Your task to perform on an android device: Show me productivity apps on the Play Store Image 0: 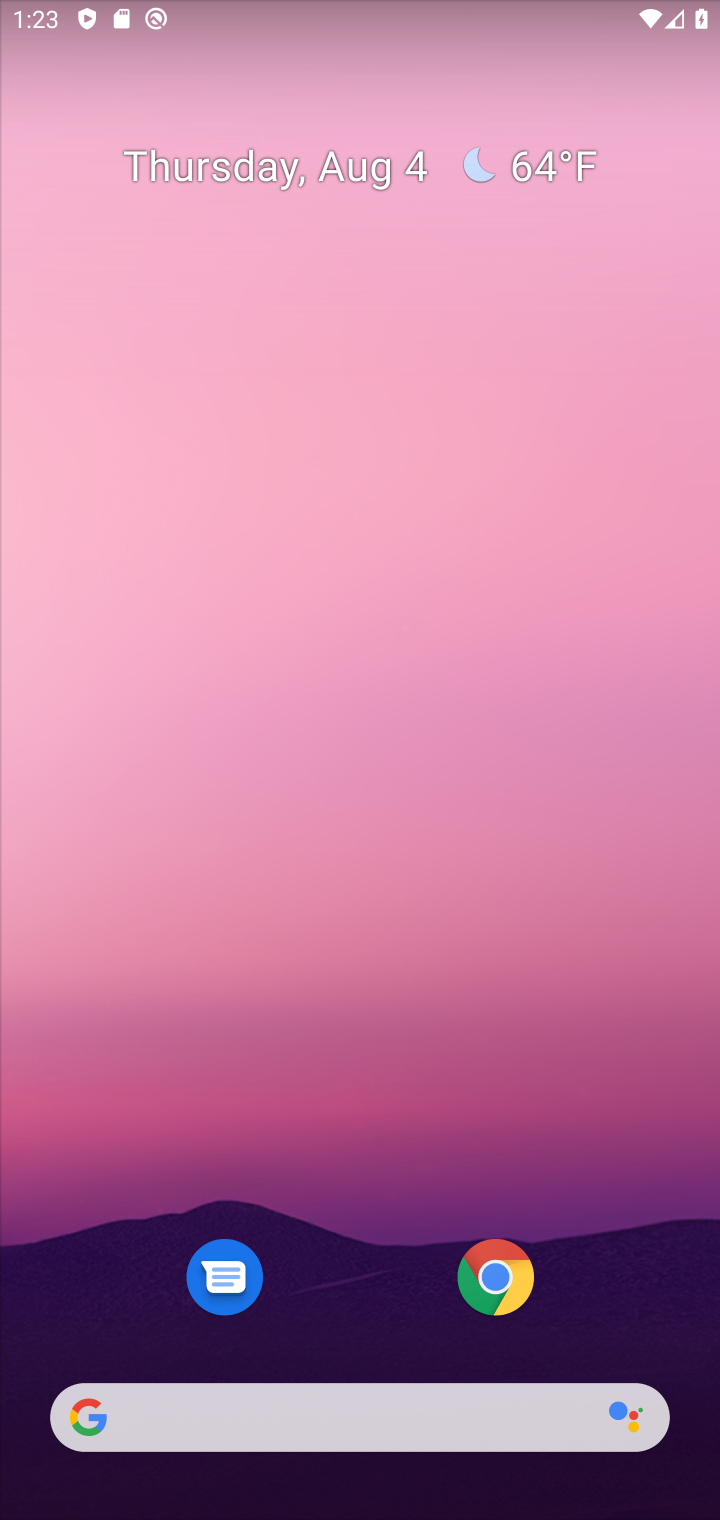
Step 0: drag from (283, 1263) to (334, 650)
Your task to perform on an android device: Show me productivity apps on the Play Store Image 1: 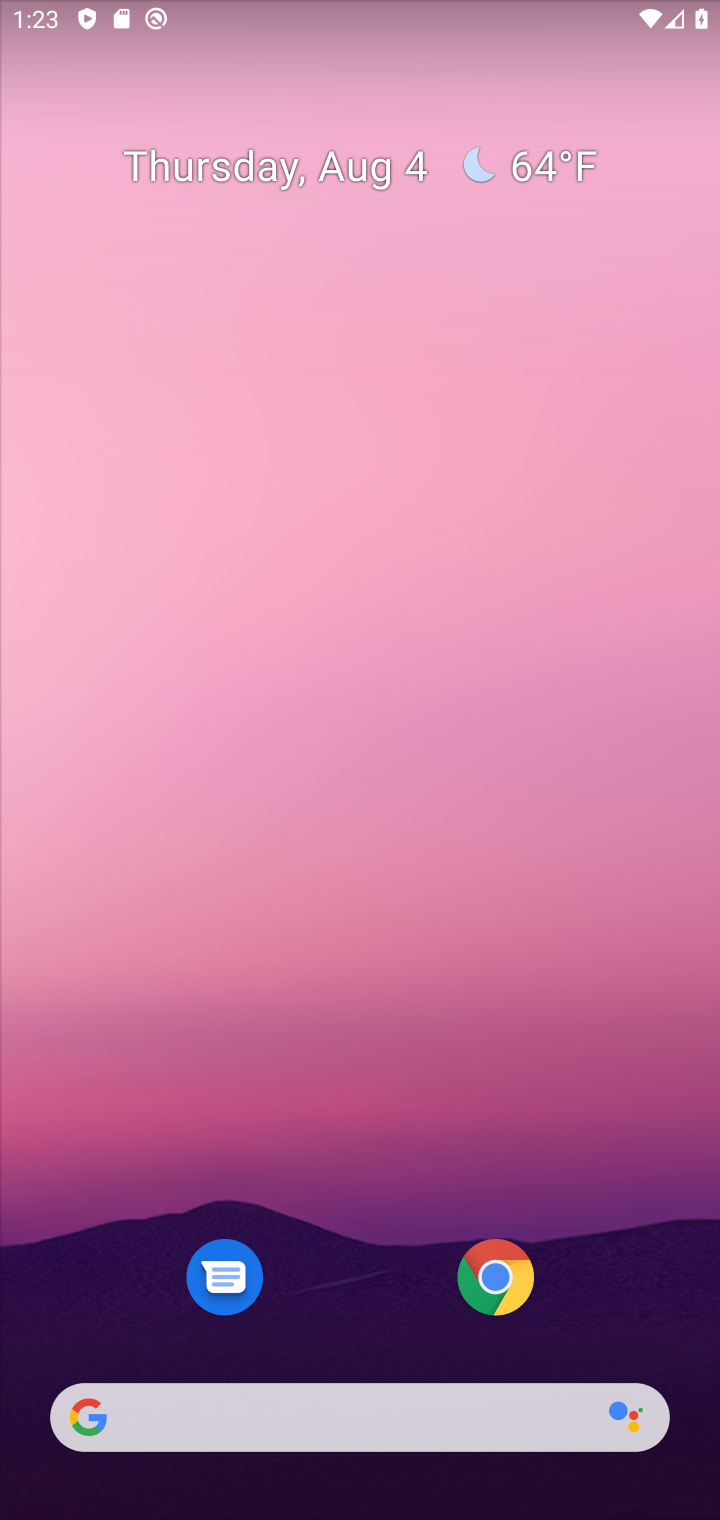
Step 1: drag from (365, 753) to (394, 413)
Your task to perform on an android device: Show me productivity apps on the Play Store Image 2: 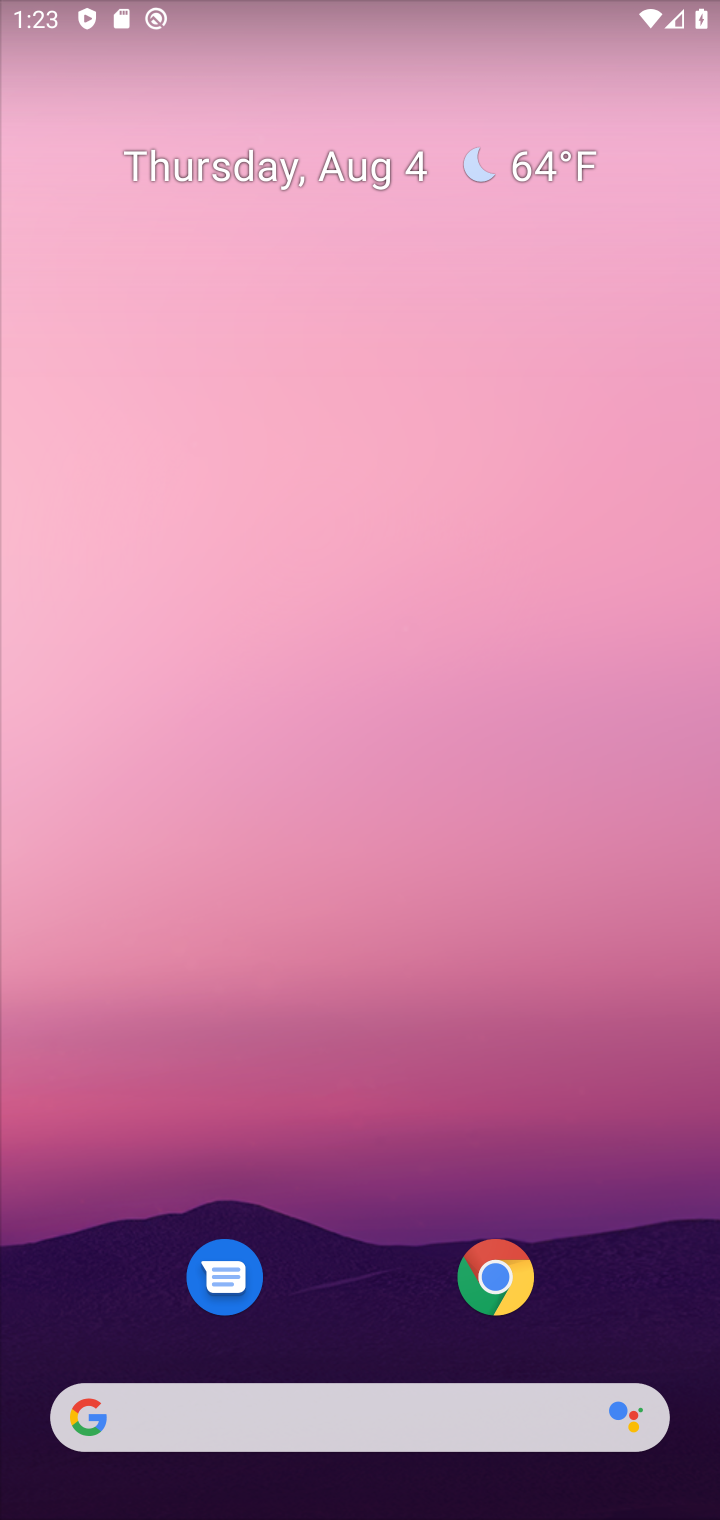
Step 2: drag from (377, 1013) to (391, 49)
Your task to perform on an android device: Show me productivity apps on the Play Store Image 3: 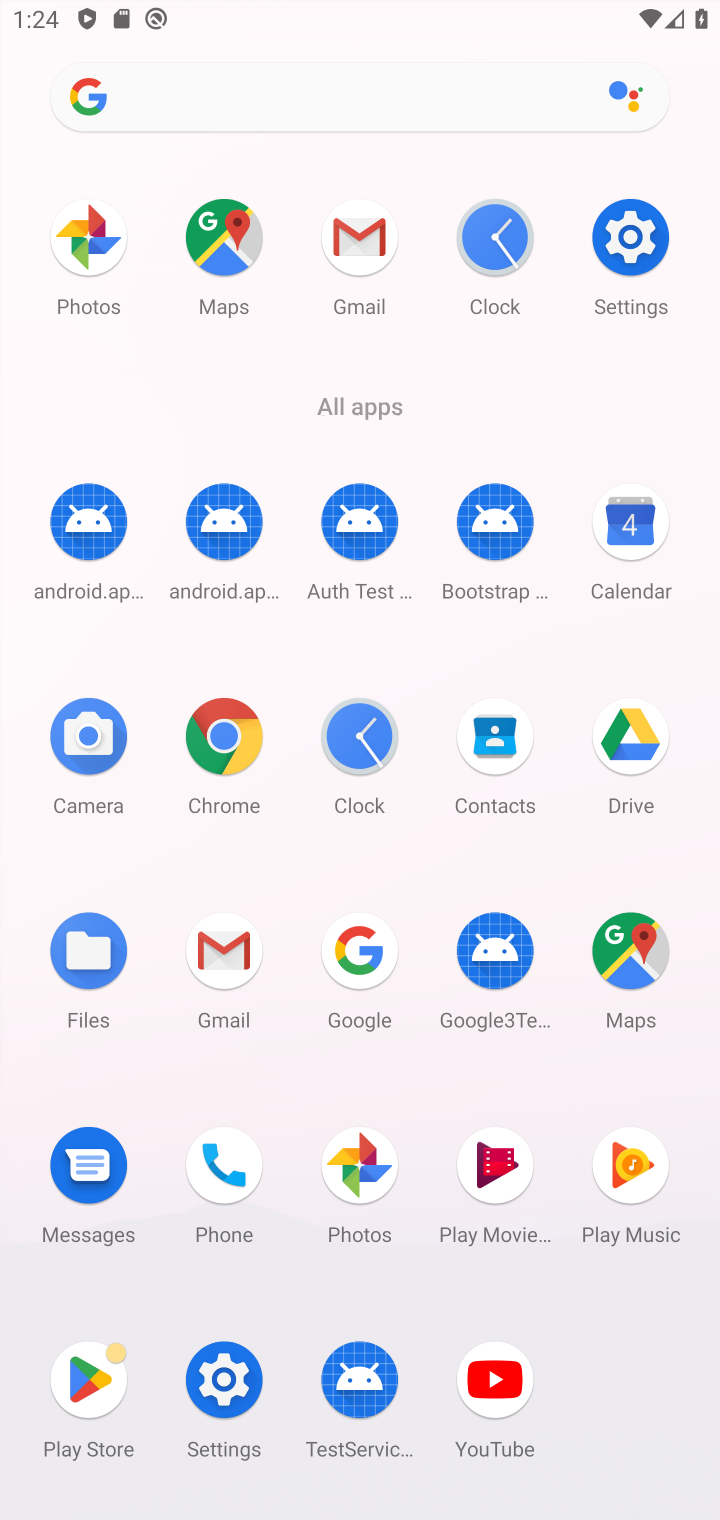
Step 3: click (92, 1359)
Your task to perform on an android device: Show me productivity apps on the Play Store Image 4: 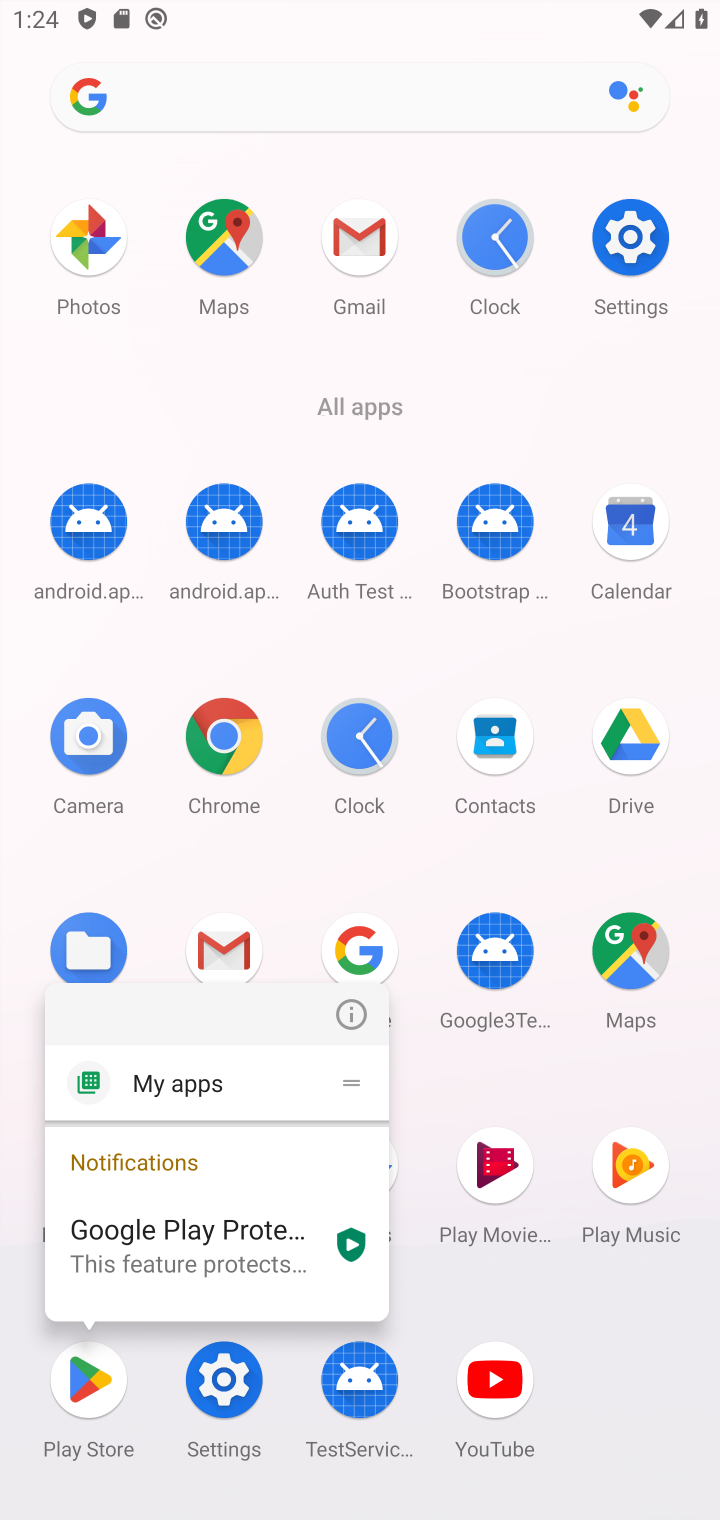
Step 4: click (105, 1392)
Your task to perform on an android device: Show me productivity apps on the Play Store Image 5: 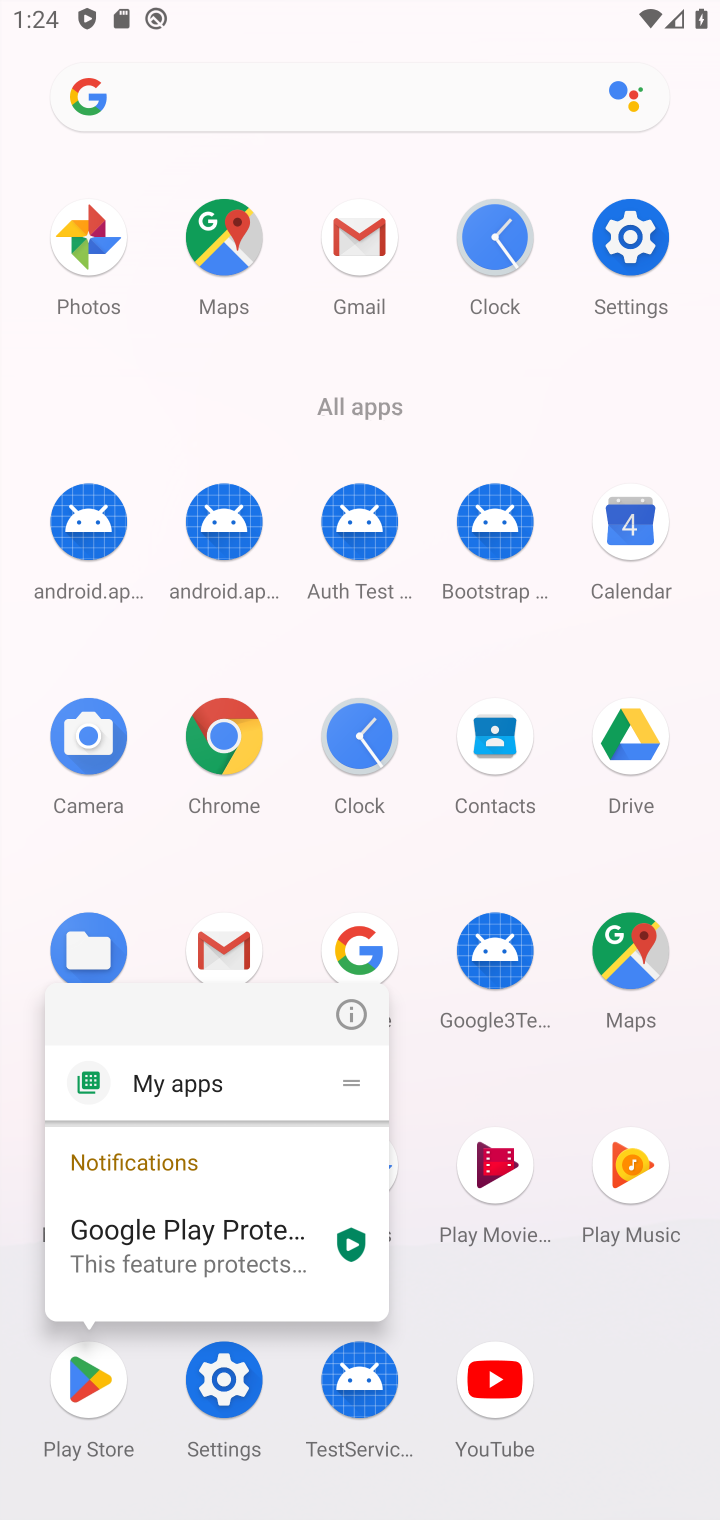
Step 5: click (105, 1392)
Your task to perform on an android device: Show me productivity apps on the Play Store Image 6: 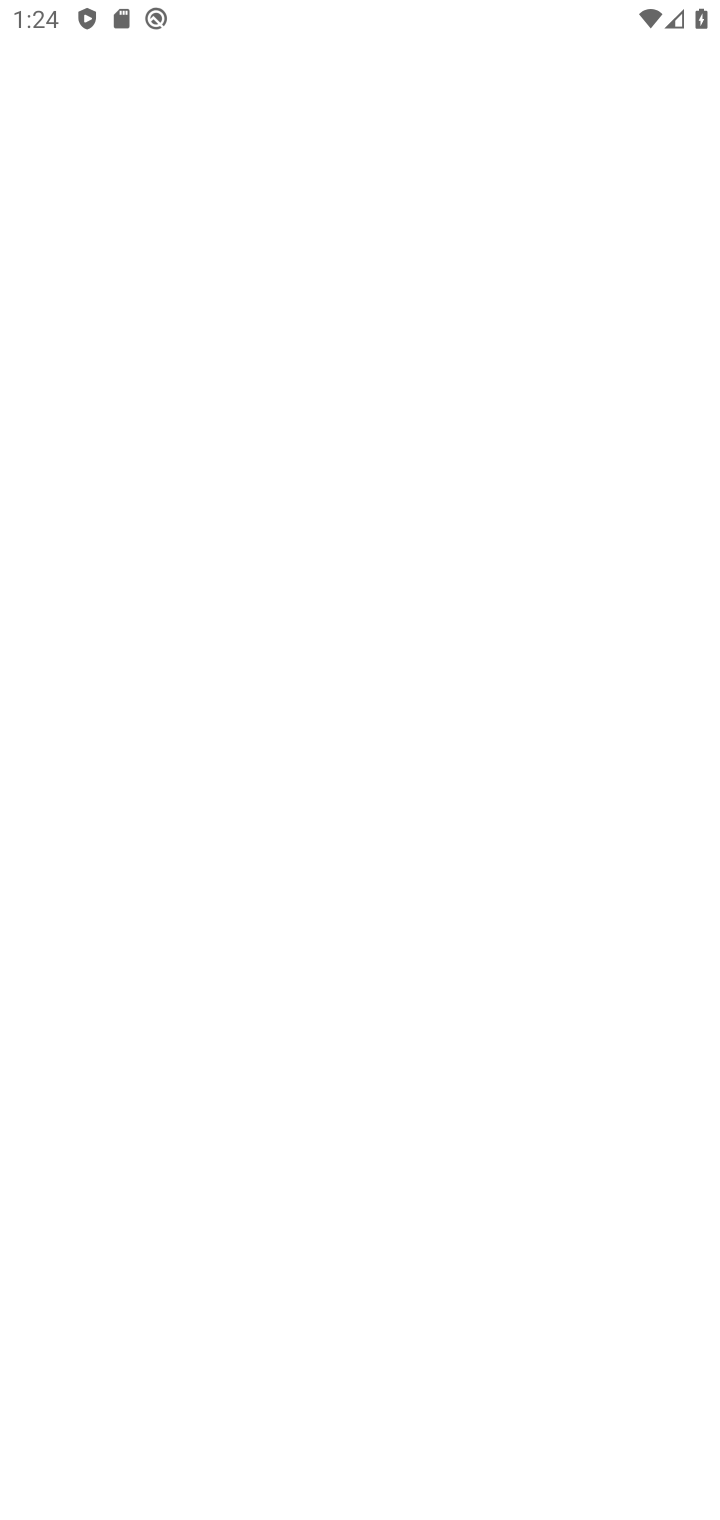
Step 6: click (105, 1392)
Your task to perform on an android device: Show me productivity apps on the Play Store Image 7: 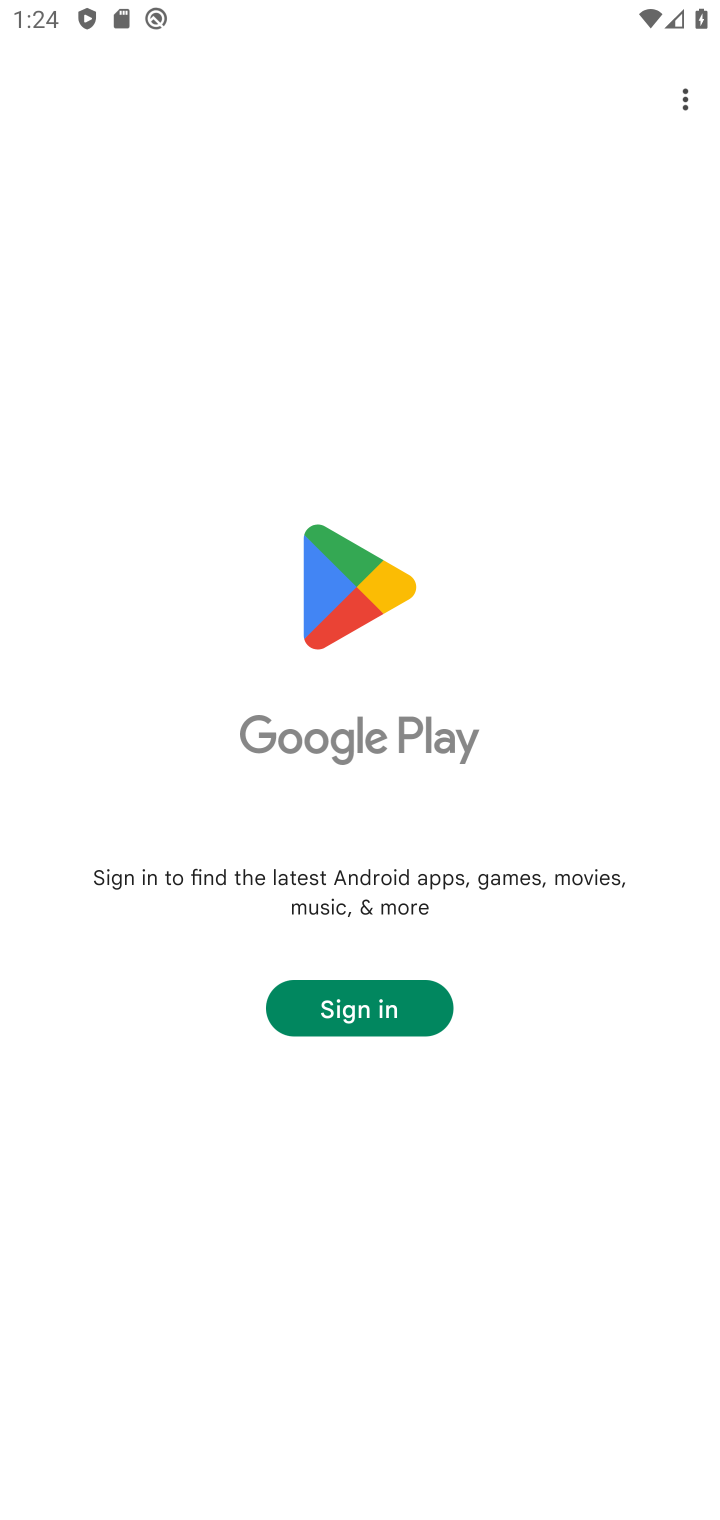
Step 7: click (399, 1013)
Your task to perform on an android device: Show me productivity apps on the Play Store Image 8: 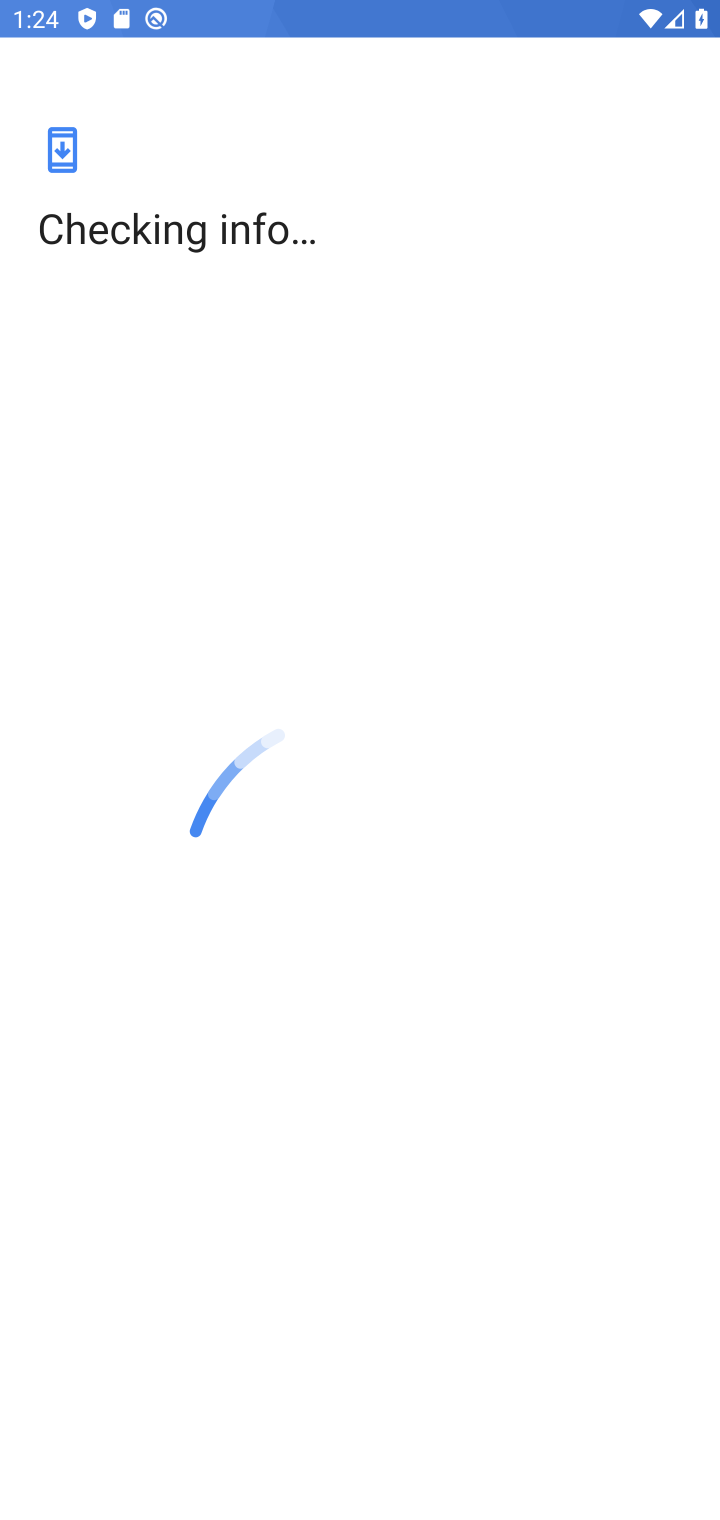
Step 8: task complete